Your task to perform on an android device: Open wifi settings Image 0: 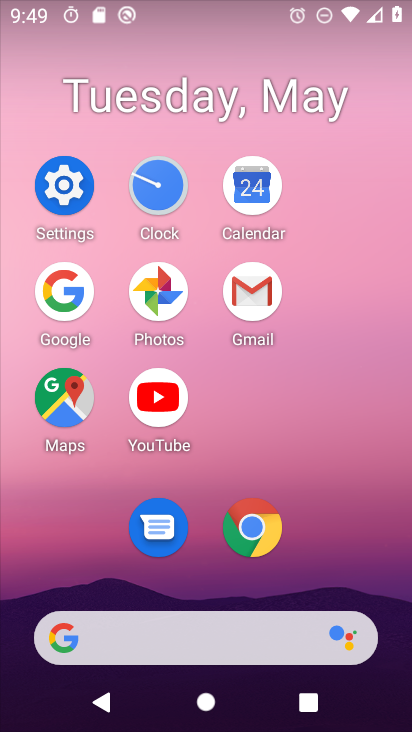
Step 0: click (69, 193)
Your task to perform on an android device: Open wifi settings Image 1: 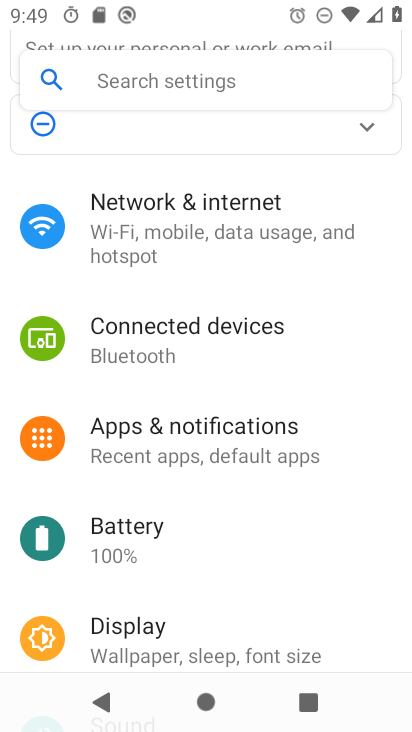
Step 1: click (236, 230)
Your task to perform on an android device: Open wifi settings Image 2: 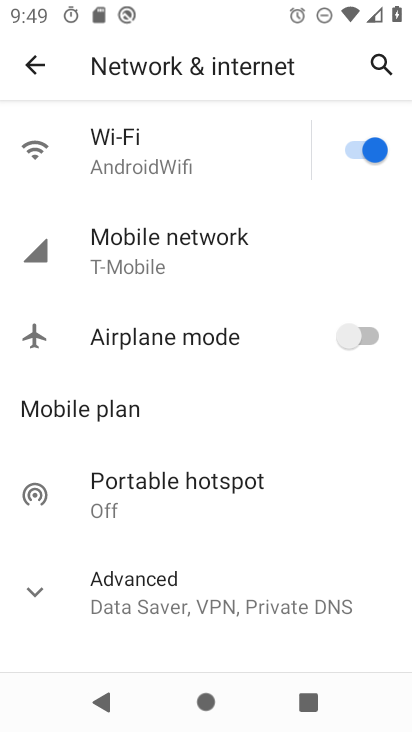
Step 2: task complete